Your task to perform on an android device: toggle translation in the chrome app Image 0: 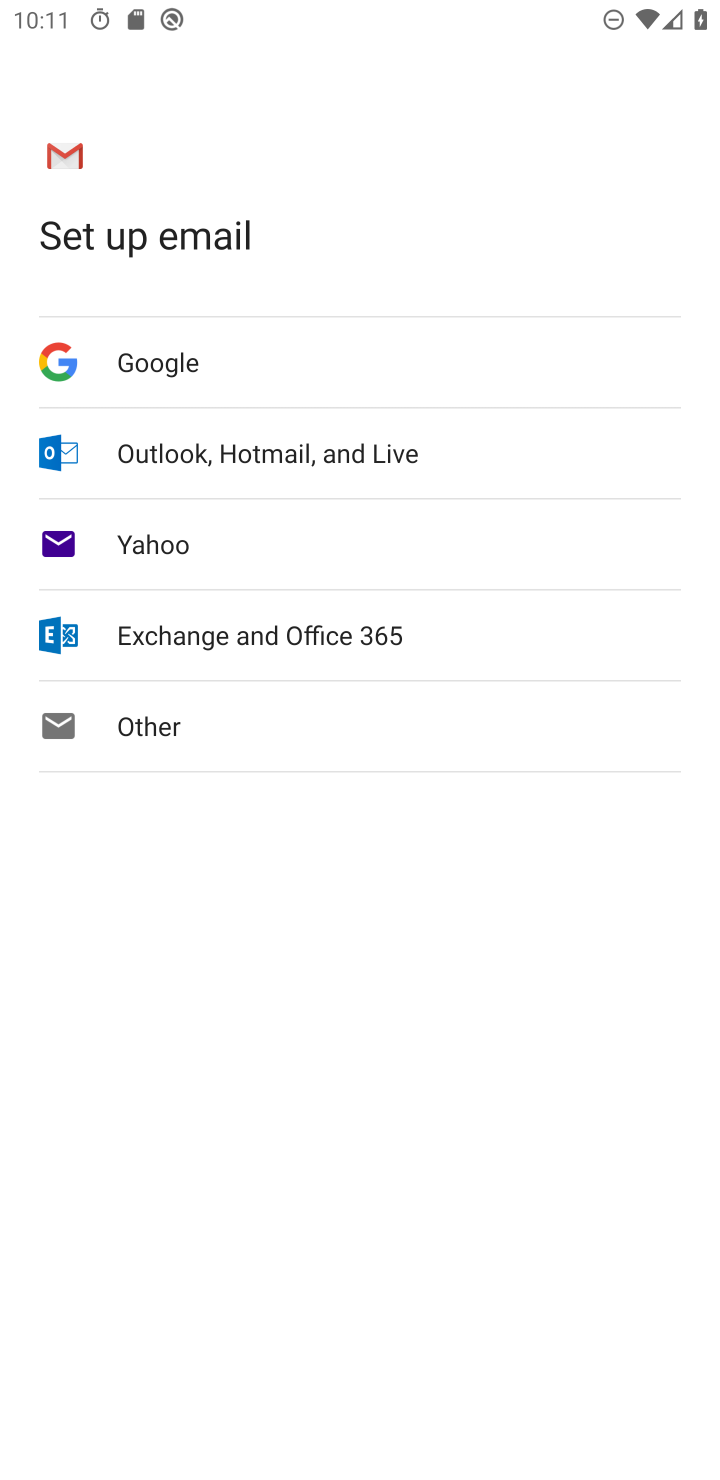
Step 0: press home button
Your task to perform on an android device: toggle translation in the chrome app Image 1: 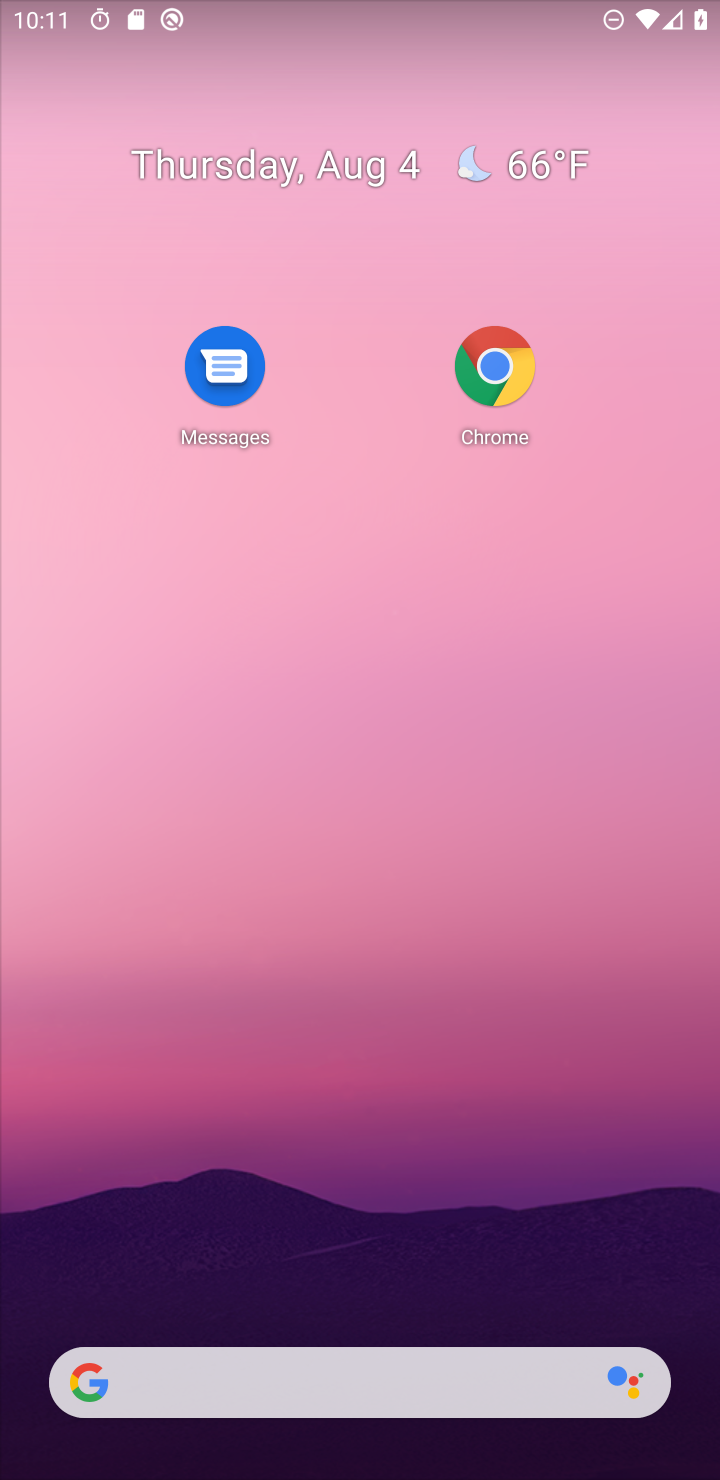
Step 1: click (487, 376)
Your task to perform on an android device: toggle translation in the chrome app Image 2: 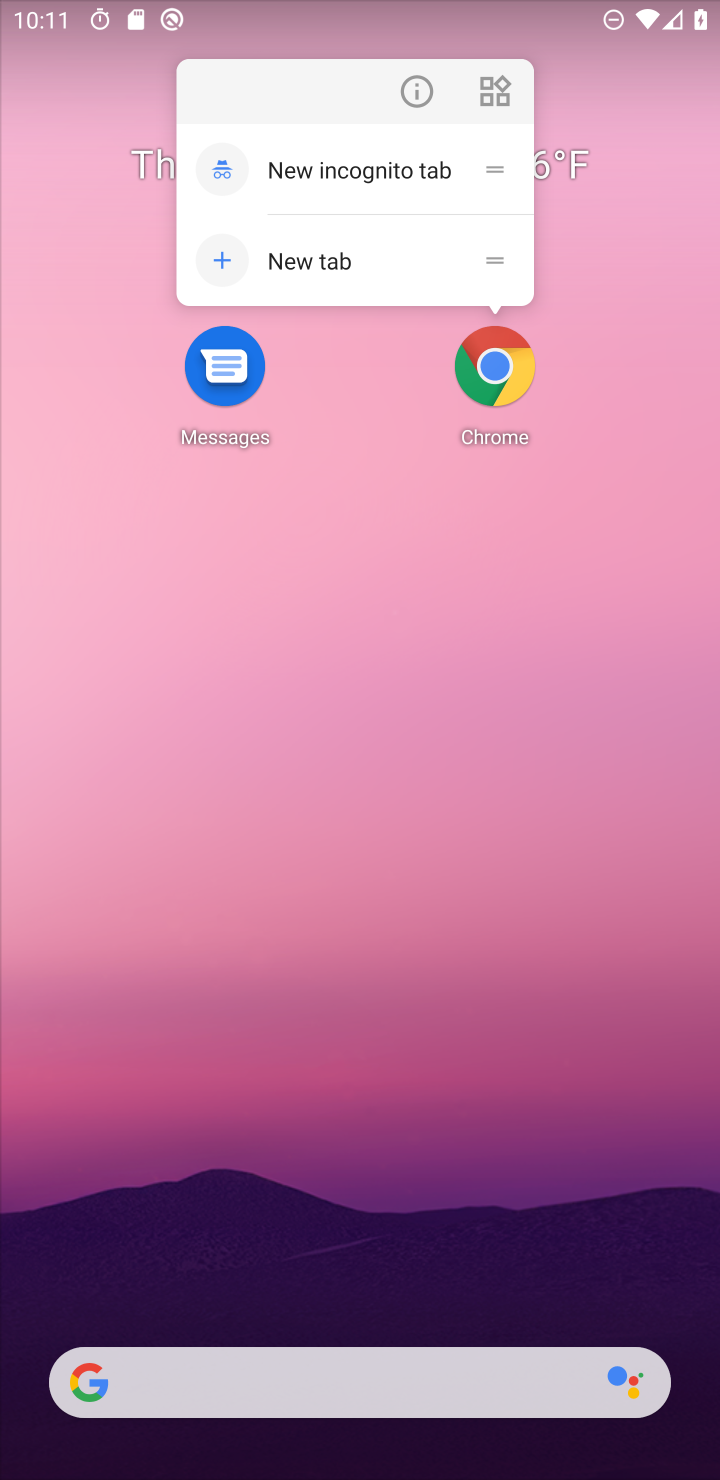
Step 2: click (501, 366)
Your task to perform on an android device: toggle translation in the chrome app Image 3: 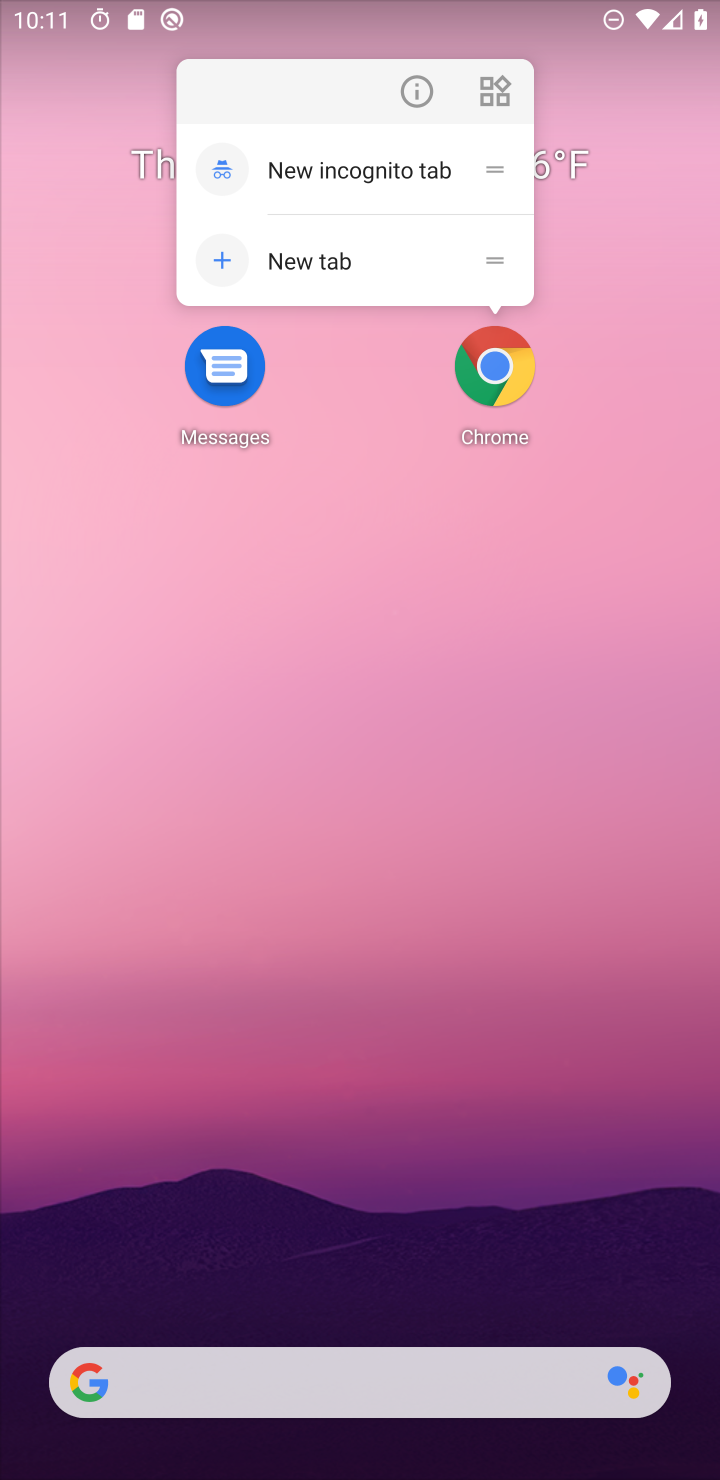
Step 3: click (501, 366)
Your task to perform on an android device: toggle translation in the chrome app Image 4: 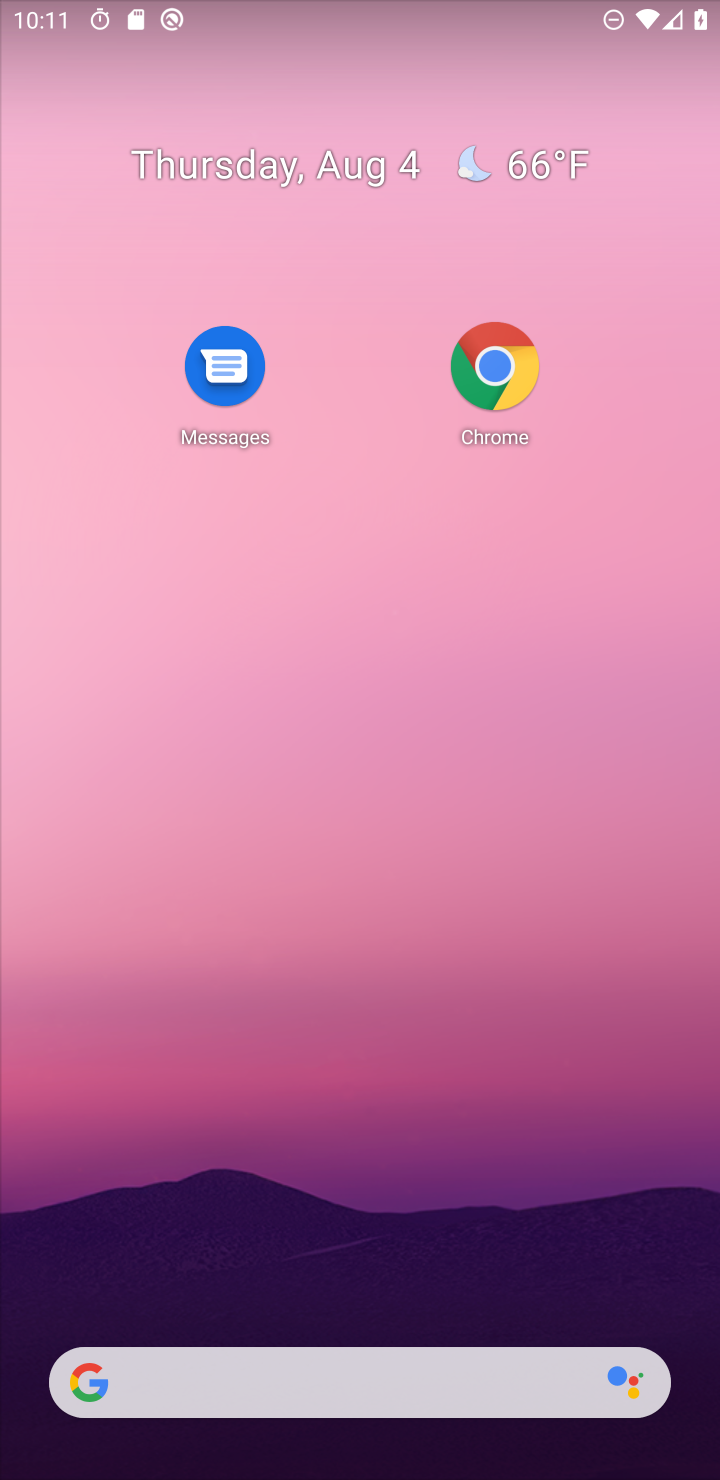
Step 4: click (501, 367)
Your task to perform on an android device: toggle translation in the chrome app Image 5: 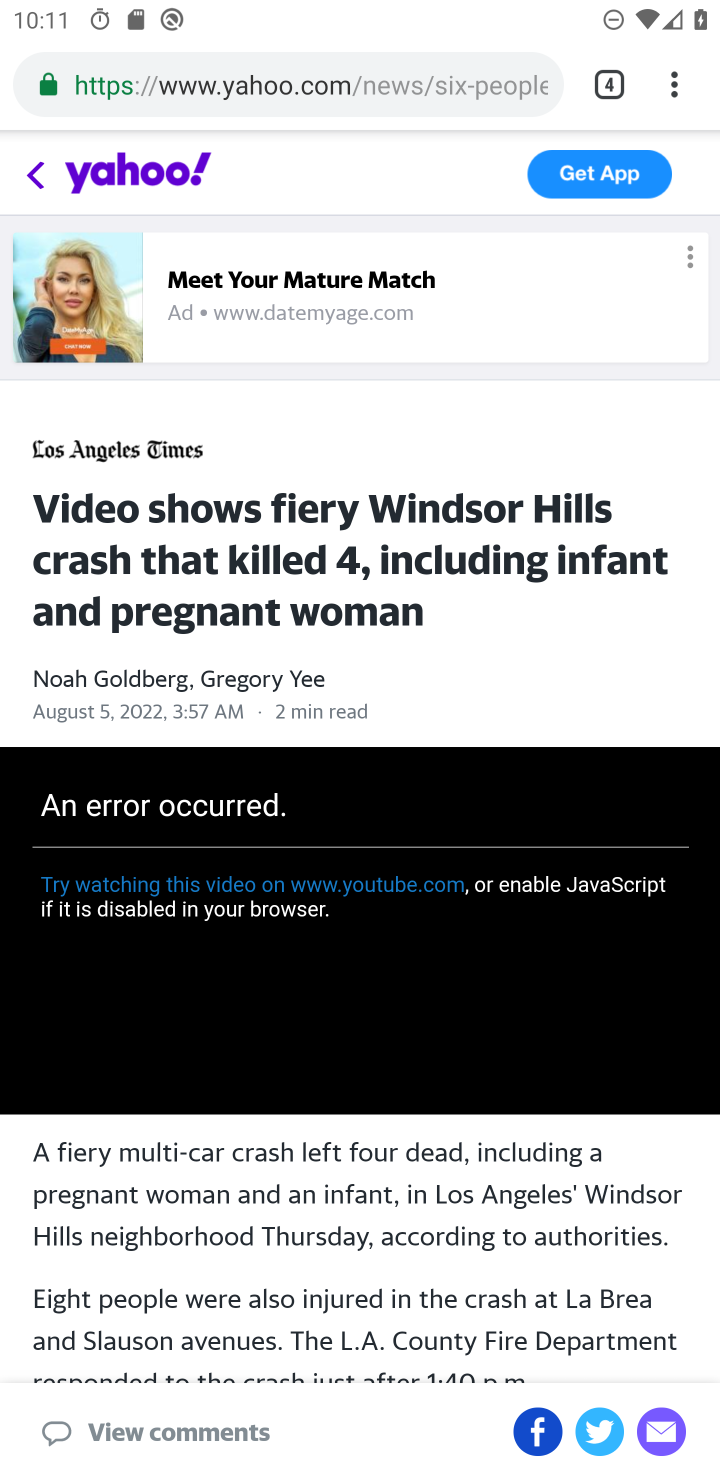
Step 5: click (673, 87)
Your task to perform on an android device: toggle translation in the chrome app Image 6: 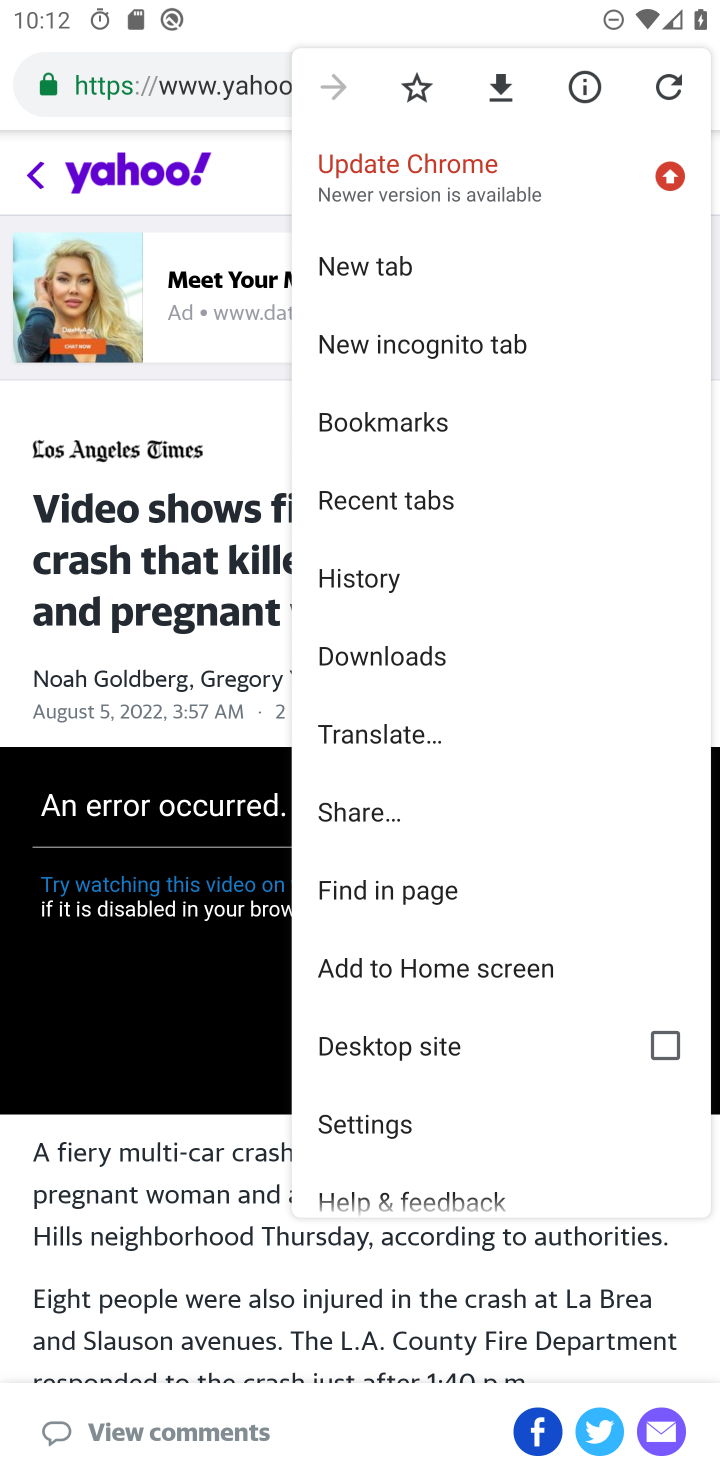
Step 6: click (363, 1112)
Your task to perform on an android device: toggle translation in the chrome app Image 7: 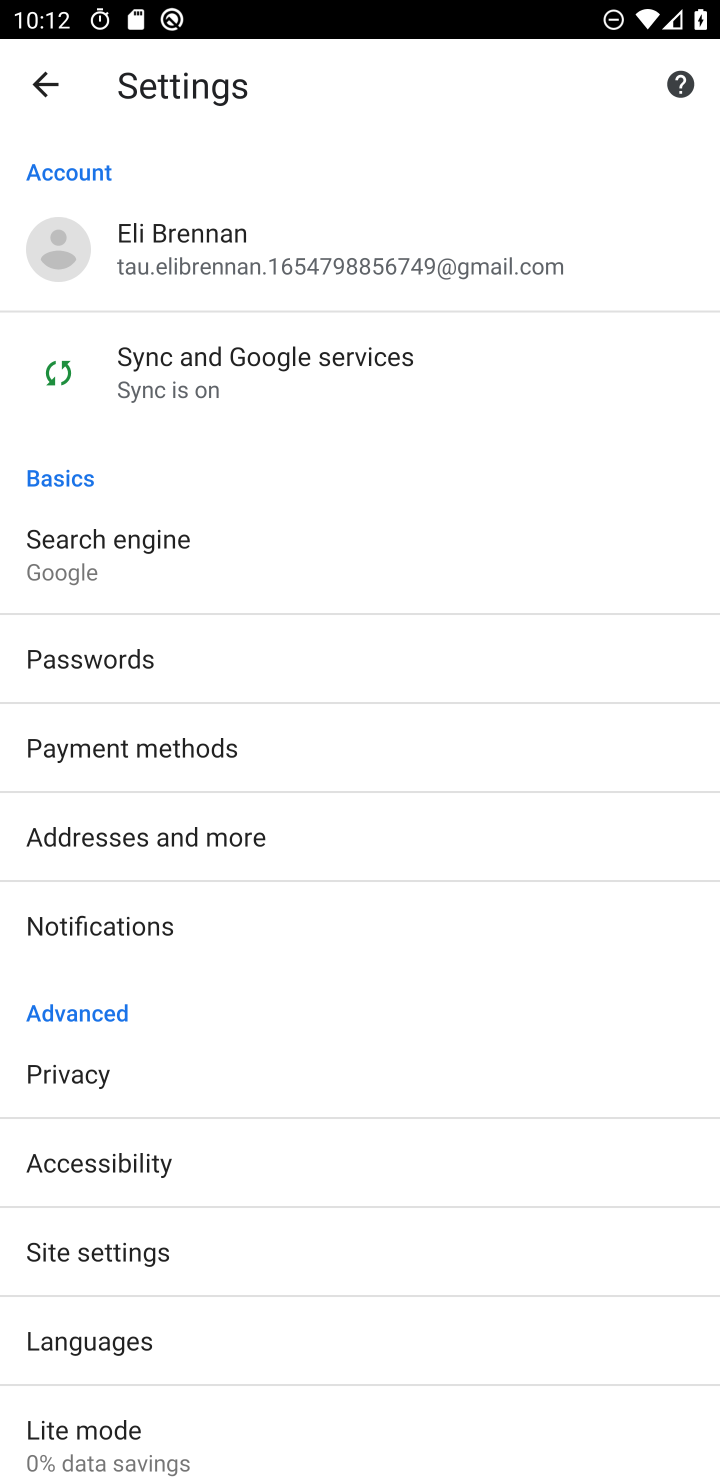
Step 7: click (148, 1336)
Your task to perform on an android device: toggle translation in the chrome app Image 8: 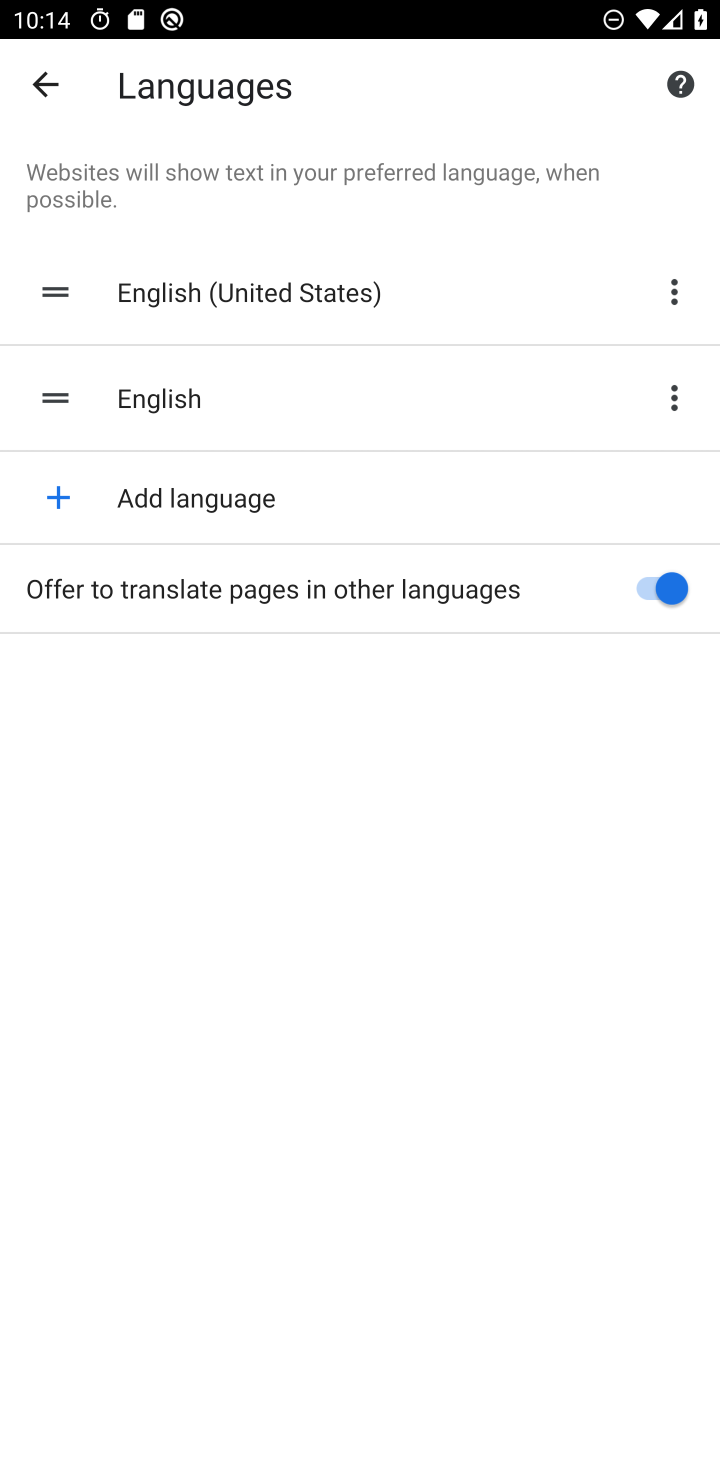
Step 8: task complete